Your task to perform on an android device: Check the news Image 0: 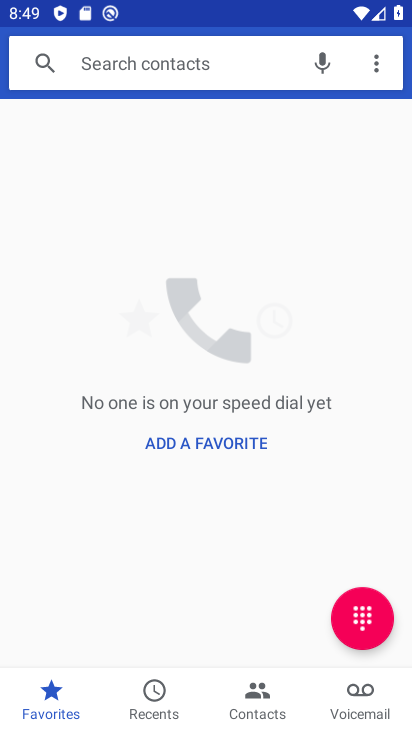
Step 0: press home button
Your task to perform on an android device: Check the news Image 1: 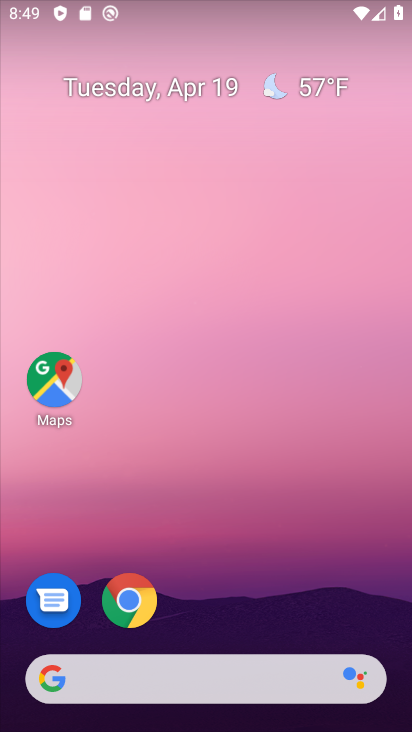
Step 1: task complete